Your task to perform on an android device: turn on the 12-hour format for clock Image 0: 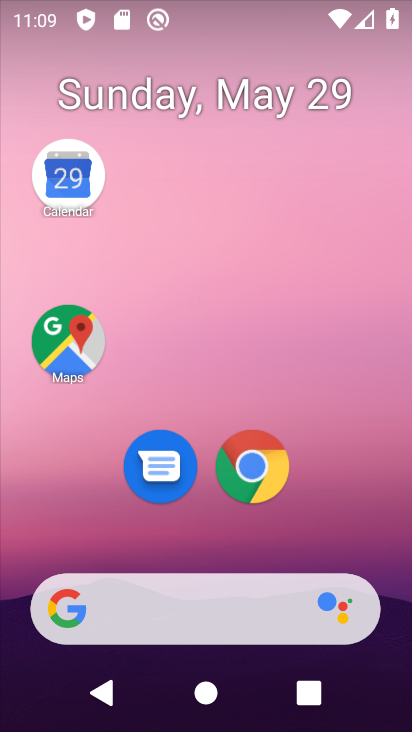
Step 0: drag from (277, 545) to (327, 48)
Your task to perform on an android device: turn on the 12-hour format for clock Image 1: 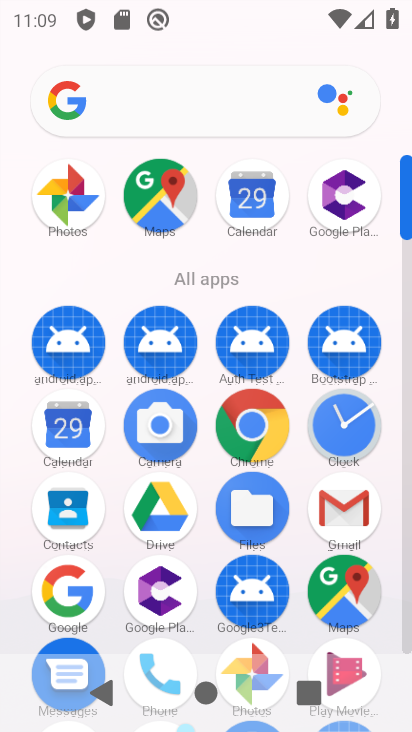
Step 1: drag from (338, 440) to (192, 203)
Your task to perform on an android device: turn on the 12-hour format for clock Image 2: 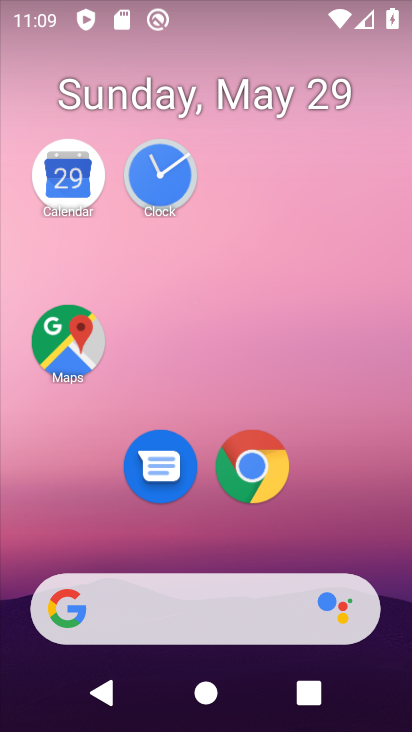
Step 2: click (169, 190)
Your task to perform on an android device: turn on the 12-hour format for clock Image 3: 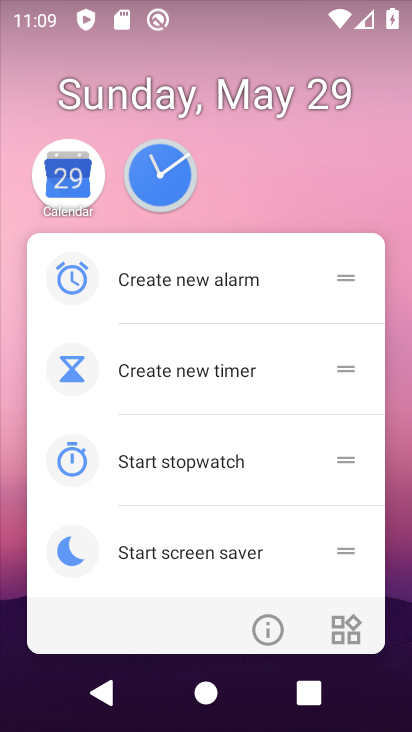
Step 3: click (181, 171)
Your task to perform on an android device: turn on the 12-hour format for clock Image 4: 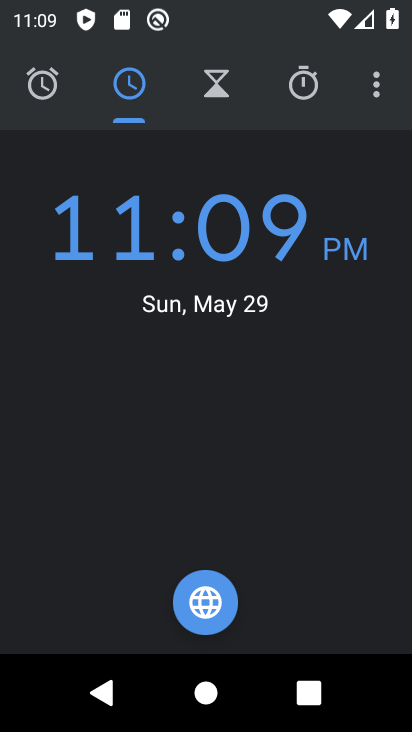
Step 4: click (379, 99)
Your task to perform on an android device: turn on the 12-hour format for clock Image 5: 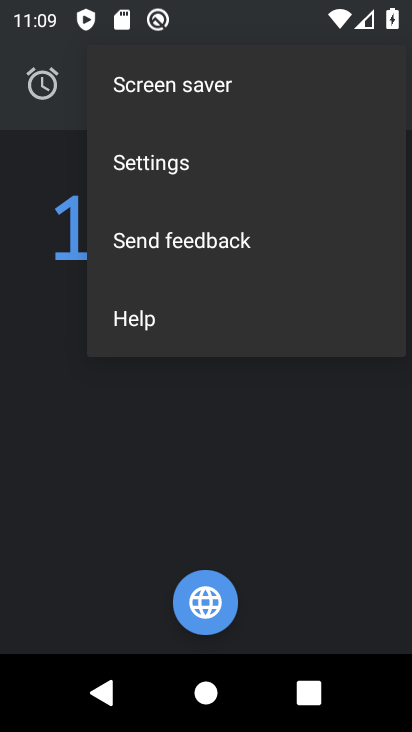
Step 5: click (198, 153)
Your task to perform on an android device: turn on the 12-hour format for clock Image 6: 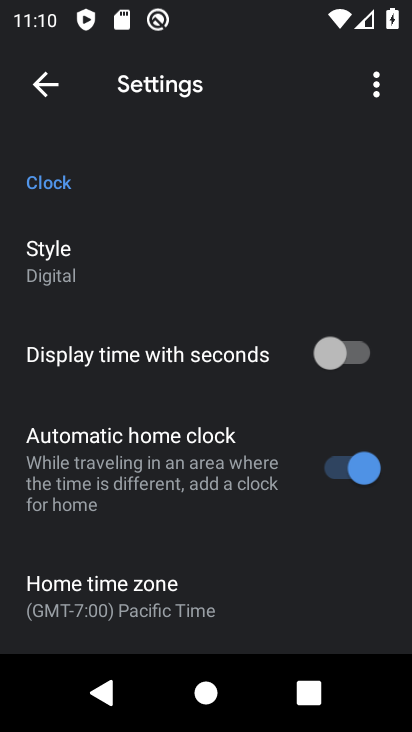
Step 6: drag from (233, 446) to (258, 174)
Your task to perform on an android device: turn on the 12-hour format for clock Image 7: 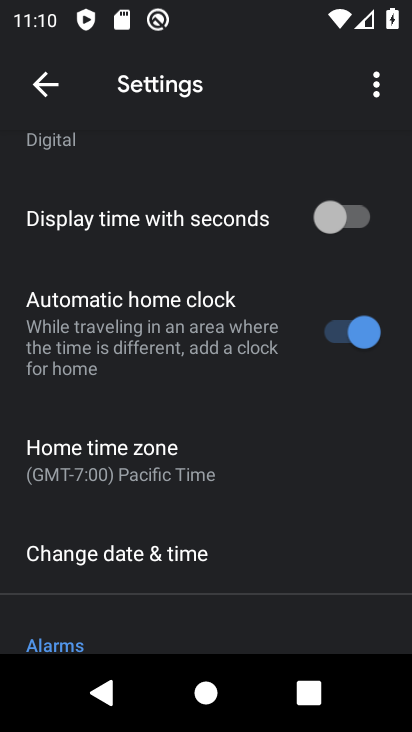
Step 7: click (201, 565)
Your task to perform on an android device: turn on the 12-hour format for clock Image 8: 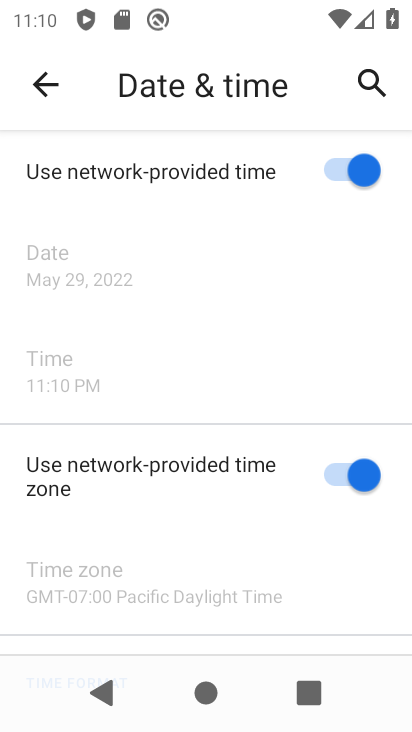
Step 8: task complete